Your task to perform on an android device: What's on my calendar tomorrow? Image 0: 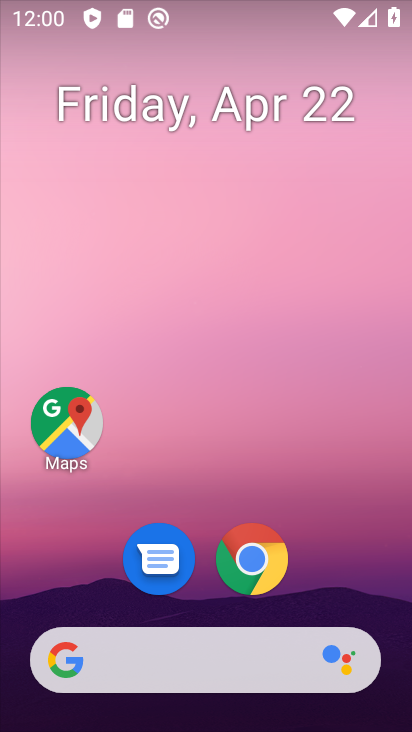
Step 0: drag from (362, 562) to (373, 102)
Your task to perform on an android device: What's on my calendar tomorrow? Image 1: 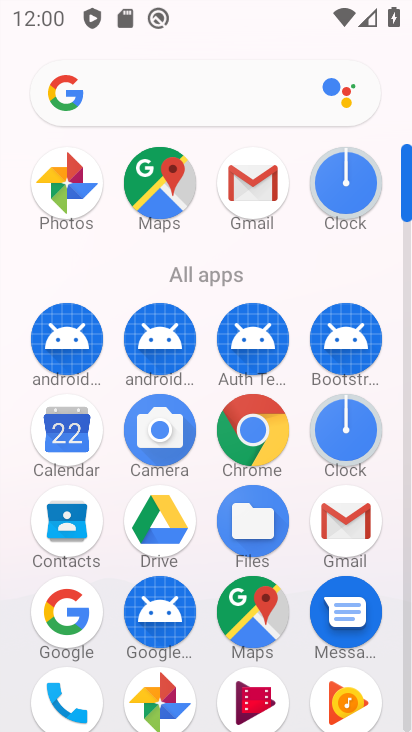
Step 1: drag from (393, 498) to (395, 284)
Your task to perform on an android device: What's on my calendar tomorrow? Image 2: 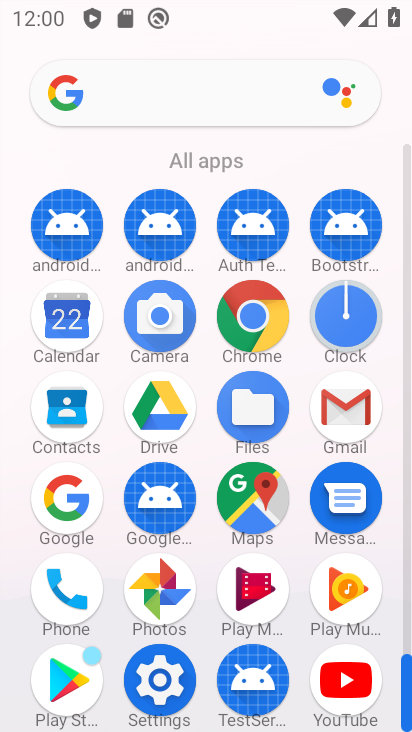
Step 2: click (64, 319)
Your task to perform on an android device: What's on my calendar tomorrow? Image 3: 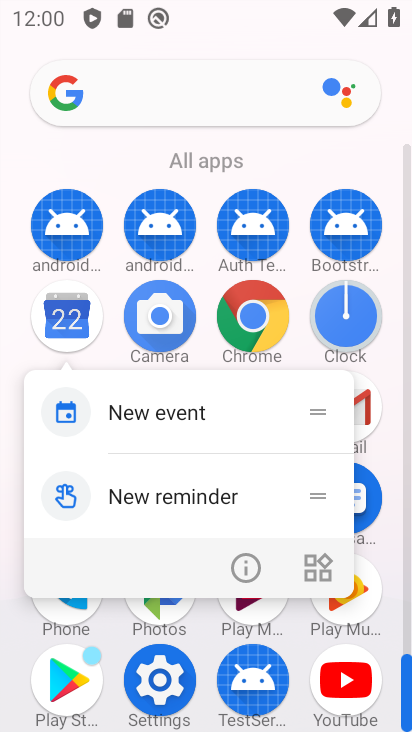
Step 3: click (68, 315)
Your task to perform on an android device: What's on my calendar tomorrow? Image 4: 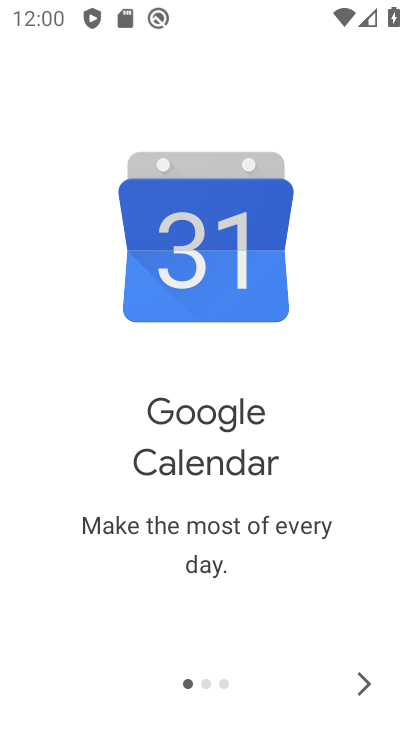
Step 4: click (360, 679)
Your task to perform on an android device: What's on my calendar tomorrow? Image 5: 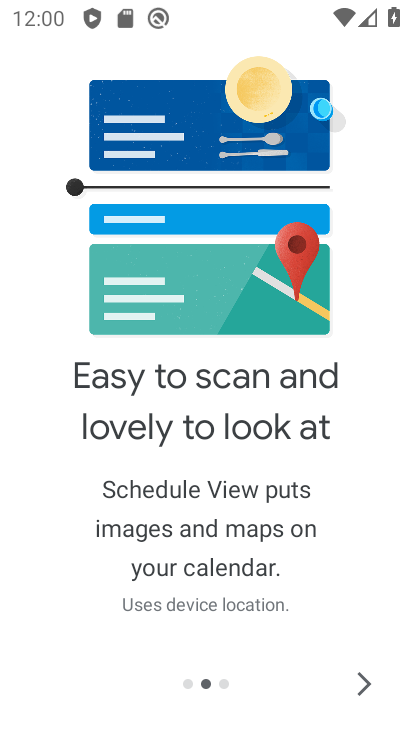
Step 5: click (362, 685)
Your task to perform on an android device: What's on my calendar tomorrow? Image 6: 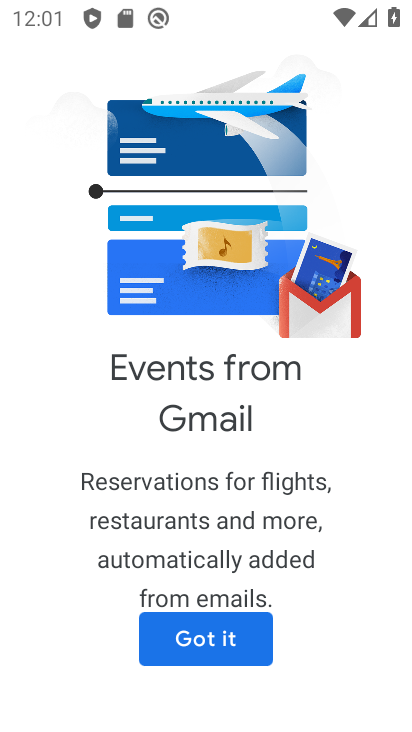
Step 6: click (221, 631)
Your task to perform on an android device: What's on my calendar tomorrow? Image 7: 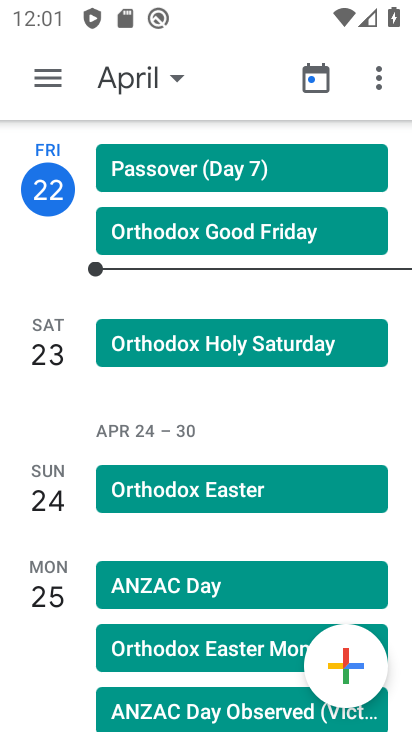
Step 7: click (170, 73)
Your task to perform on an android device: What's on my calendar tomorrow? Image 8: 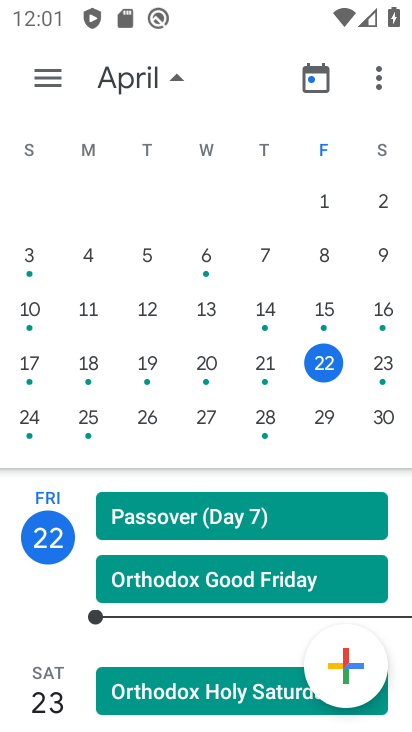
Step 8: click (381, 358)
Your task to perform on an android device: What's on my calendar tomorrow? Image 9: 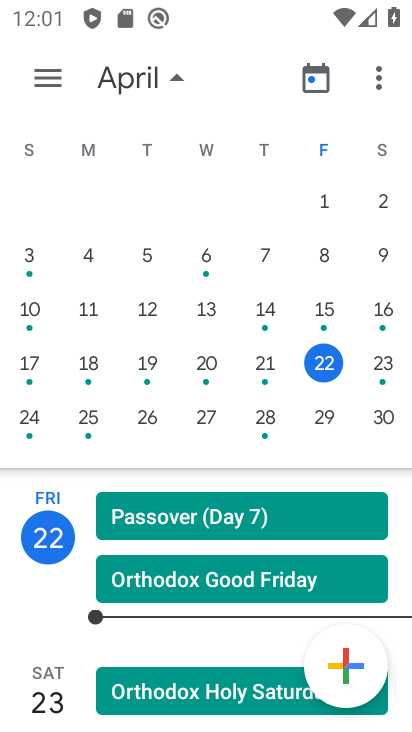
Step 9: click (383, 364)
Your task to perform on an android device: What's on my calendar tomorrow? Image 10: 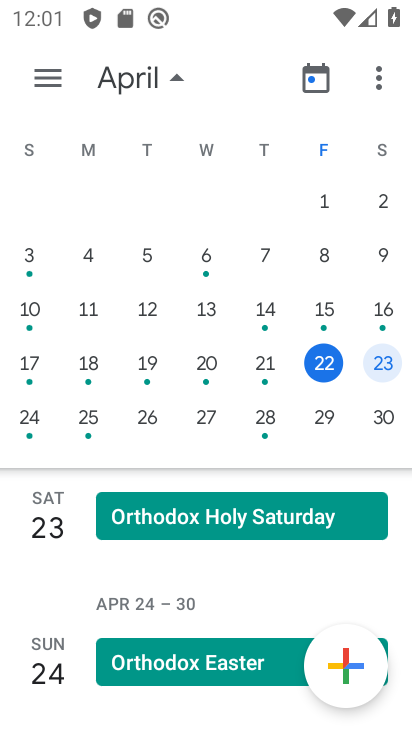
Step 10: task complete